Your task to perform on an android device: Open Youtube and go to "Your channel" Image 0: 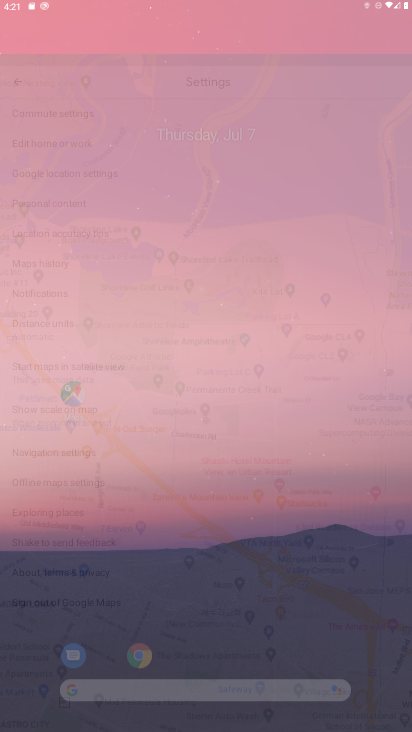
Step 0: press home button
Your task to perform on an android device: Open Youtube and go to "Your channel" Image 1: 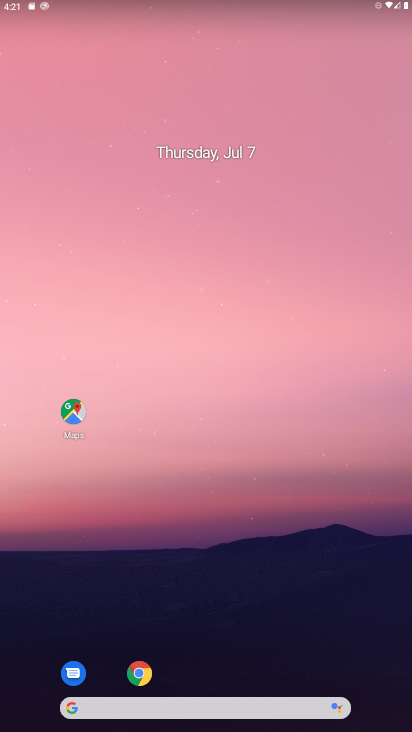
Step 1: drag from (217, 677) to (200, 0)
Your task to perform on an android device: Open Youtube and go to "Your channel" Image 2: 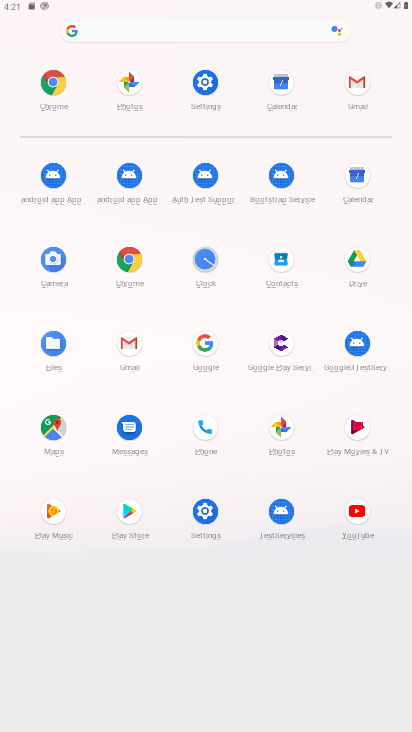
Step 2: click (355, 511)
Your task to perform on an android device: Open Youtube and go to "Your channel" Image 3: 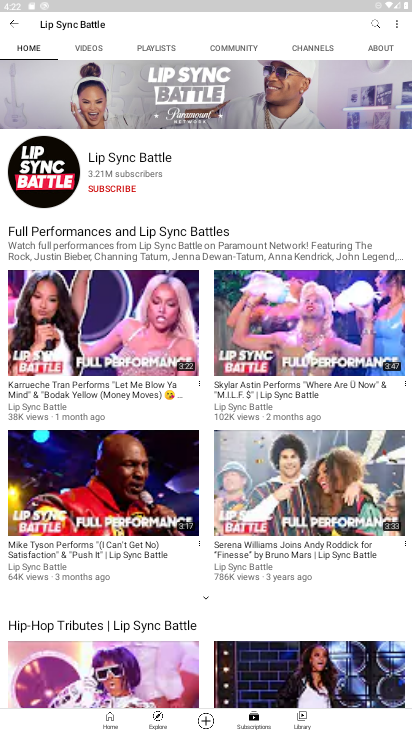
Step 3: press back button
Your task to perform on an android device: Open Youtube and go to "Your channel" Image 4: 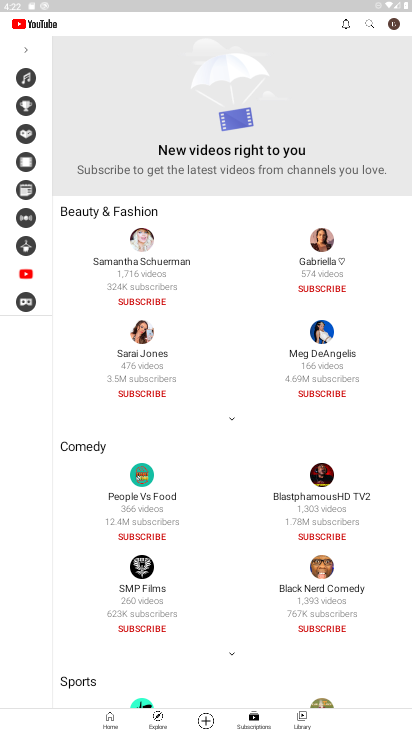
Step 4: click (389, 24)
Your task to perform on an android device: Open Youtube and go to "Your channel" Image 5: 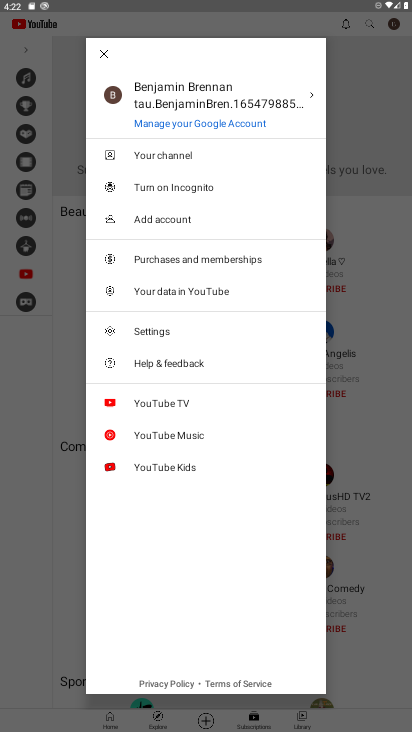
Step 5: click (159, 155)
Your task to perform on an android device: Open Youtube and go to "Your channel" Image 6: 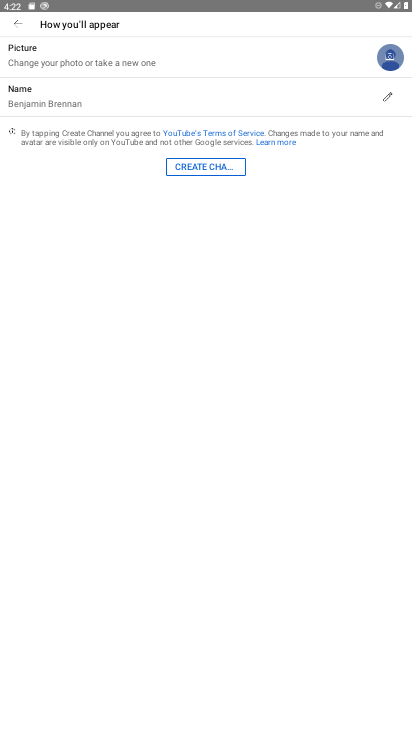
Step 6: task complete